Your task to perform on an android device: manage bookmarks in the chrome app Image 0: 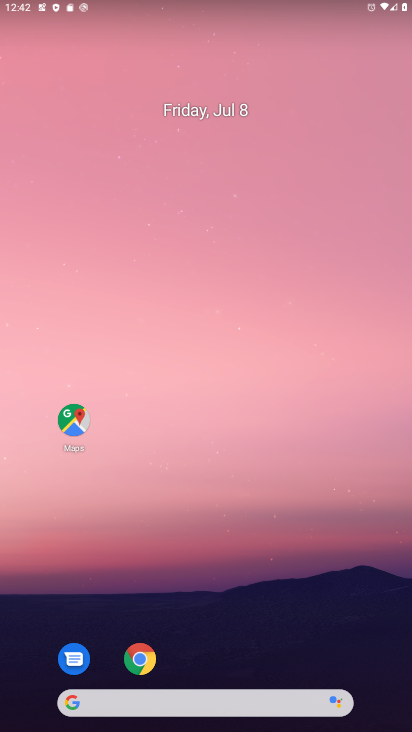
Step 0: click (137, 659)
Your task to perform on an android device: manage bookmarks in the chrome app Image 1: 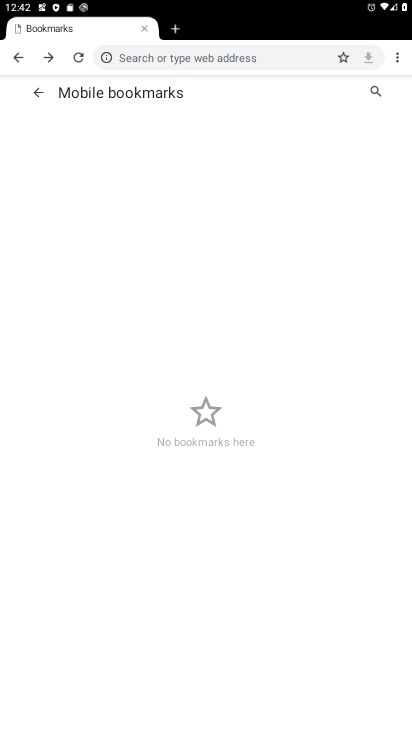
Step 1: click (397, 53)
Your task to perform on an android device: manage bookmarks in the chrome app Image 2: 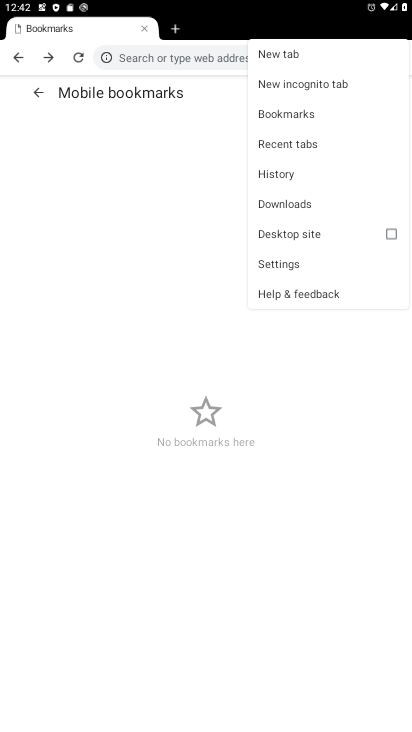
Step 2: click (291, 111)
Your task to perform on an android device: manage bookmarks in the chrome app Image 3: 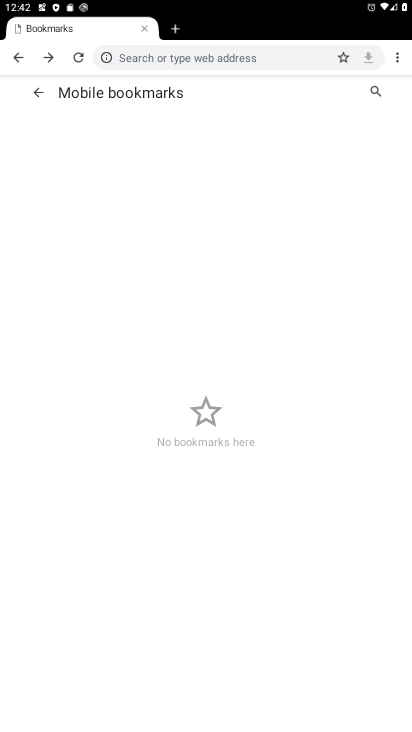
Step 3: task complete